Your task to perform on an android device: turn on javascript in the chrome app Image 0: 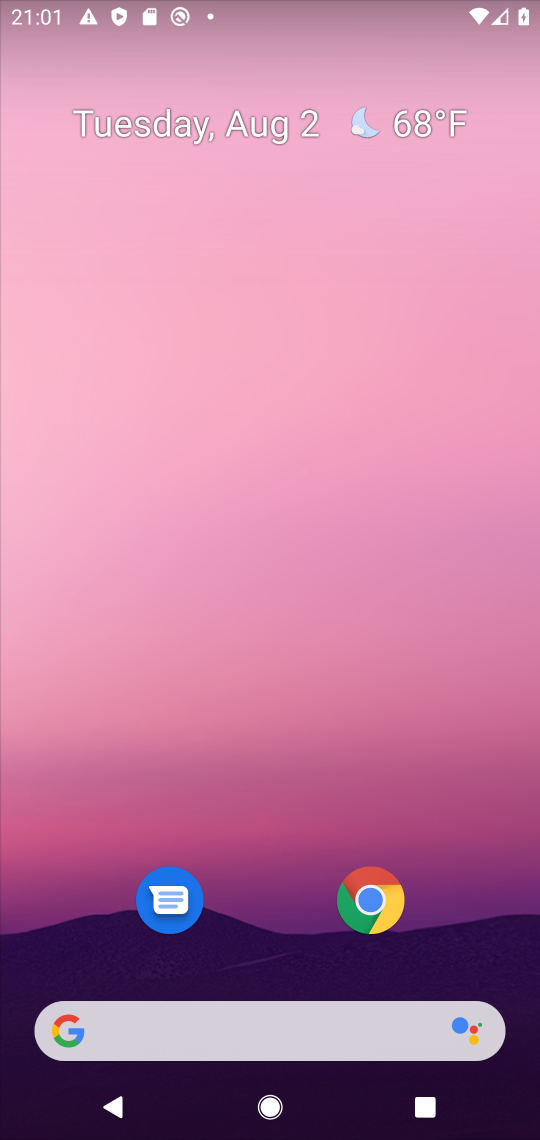
Step 0: click (383, 902)
Your task to perform on an android device: turn on javascript in the chrome app Image 1: 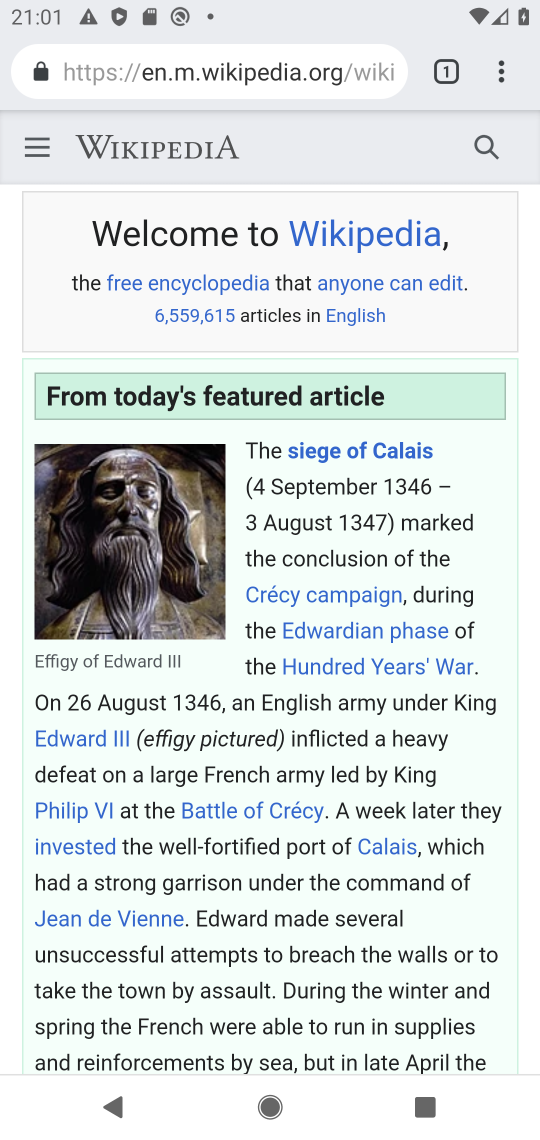
Step 1: click (496, 74)
Your task to perform on an android device: turn on javascript in the chrome app Image 2: 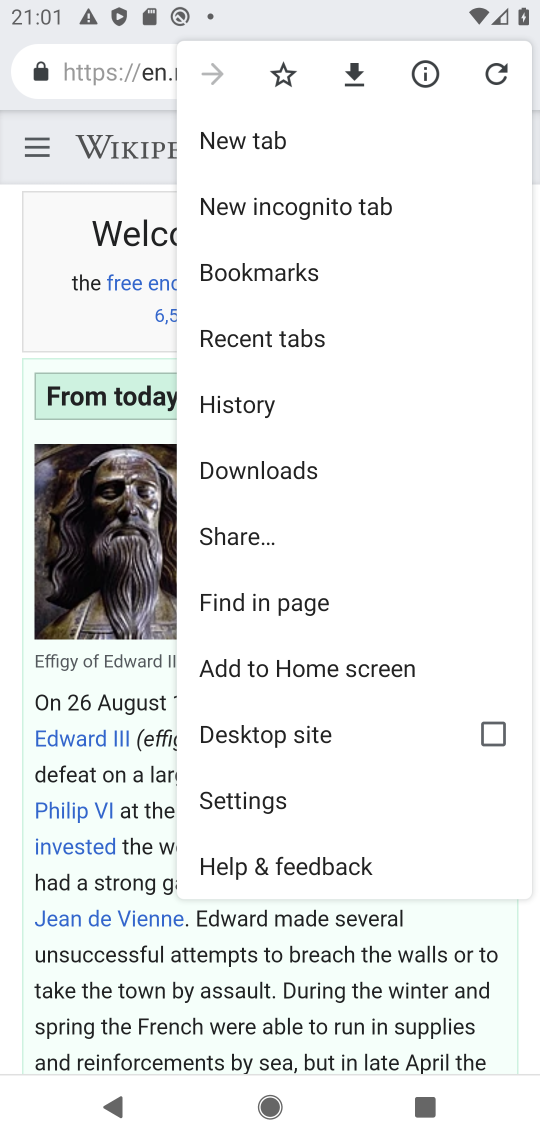
Step 2: click (271, 797)
Your task to perform on an android device: turn on javascript in the chrome app Image 3: 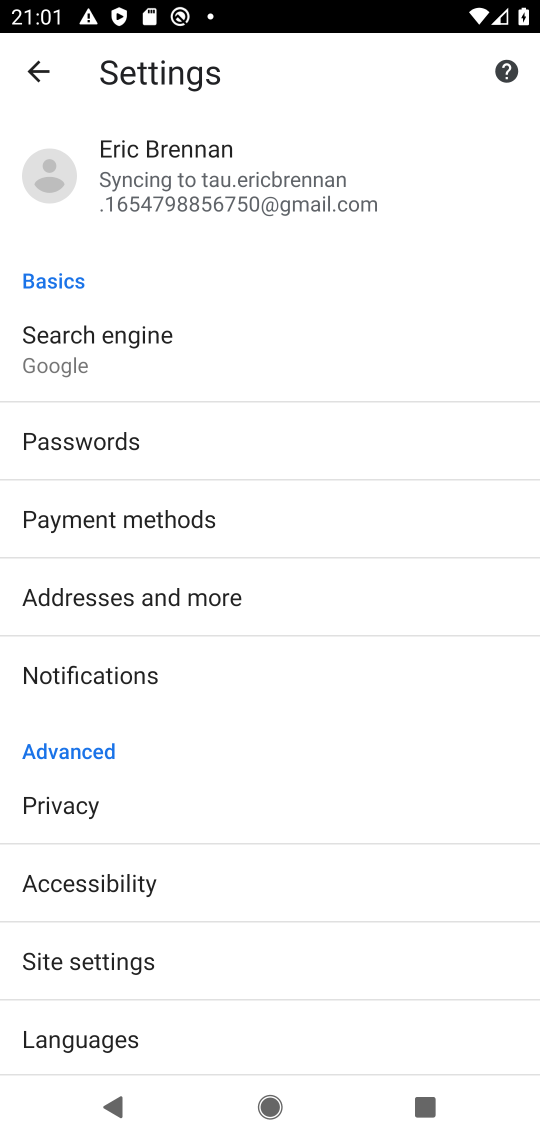
Step 3: click (147, 963)
Your task to perform on an android device: turn on javascript in the chrome app Image 4: 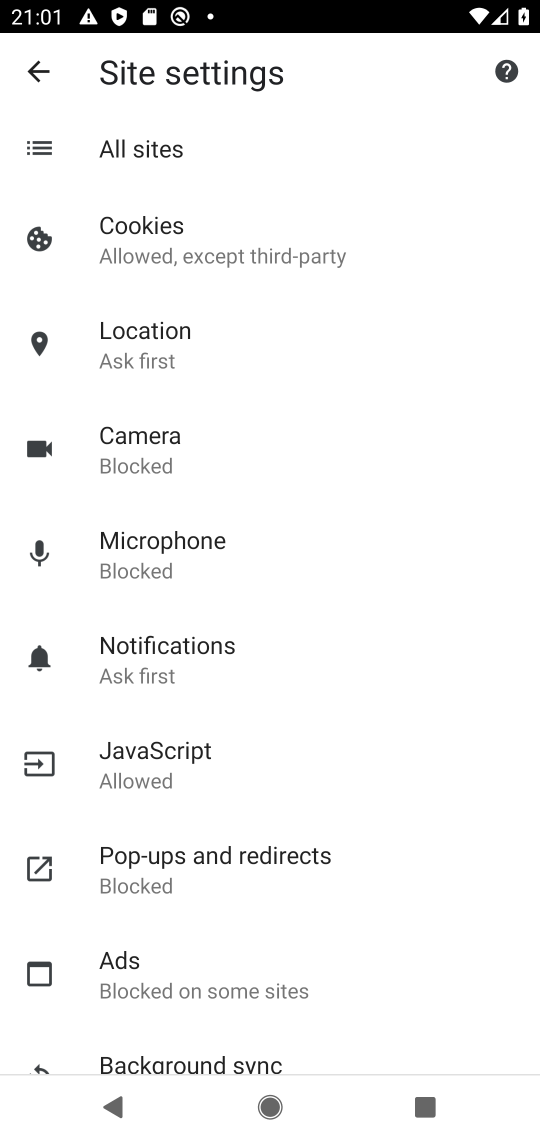
Step 4: click (220, 764)
Your task to perform on an android device: turn on javascript in the chrome app Image 5: 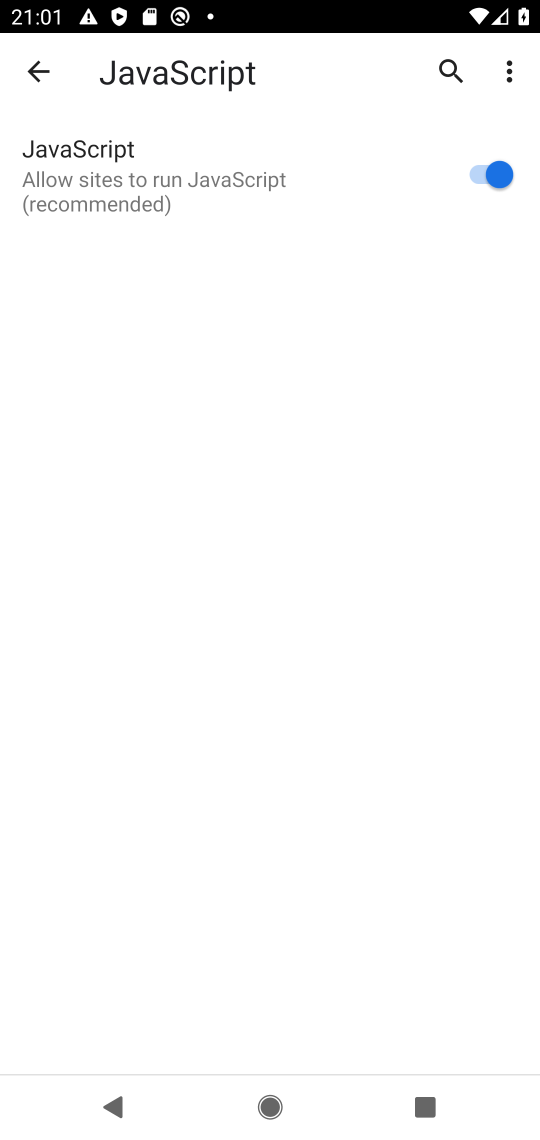
Step 5: task complete